Your task to perform on an android device: allow notifications from all sites in the chrome app Image 0: 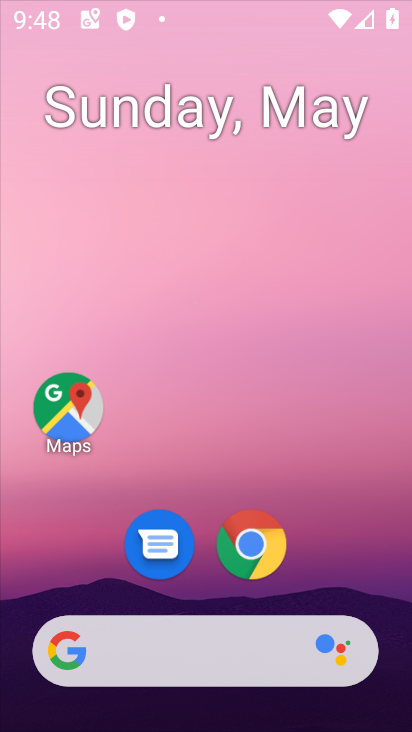
Step 0: drag from (342, 510) to (336, 0)
Your task to perform on an android device: allow notifications from all sites in the chrome app Image 1: 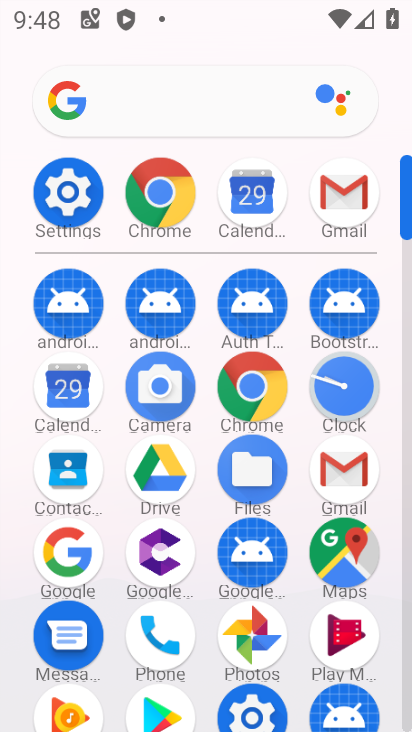
Step 1: click (169, 185)
Your task to perform on an android device: allow notifications from all sites in the chrome app Image 2: 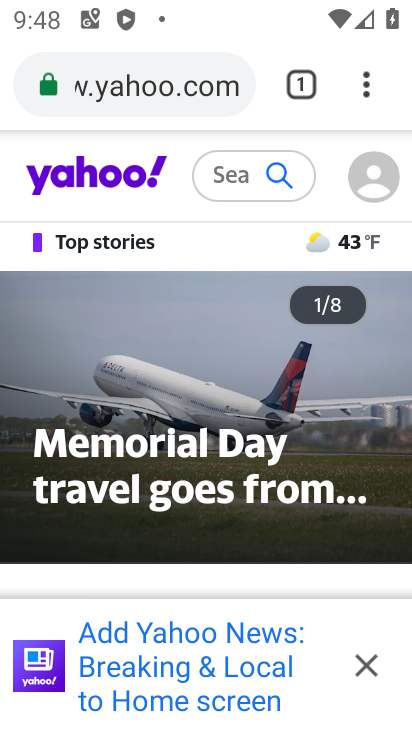
Step 2: click (362, 95)
Your task to perform on an android device: allow notifications from all sites in the chrome app Image 3: 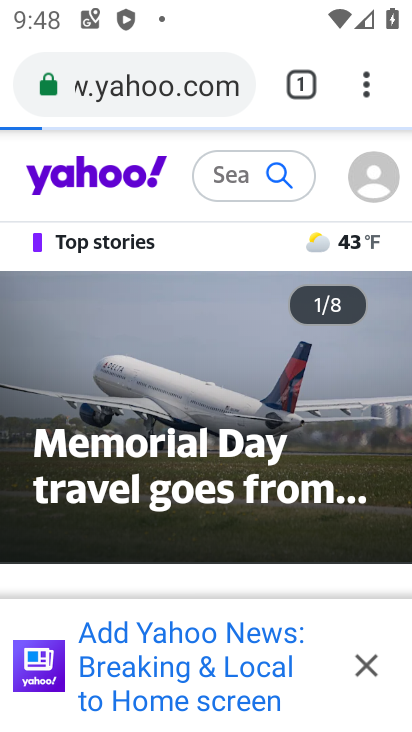
Step 3: drag from (362, 95) to (136, 576)
Your task to perform on an android device: allow notifications from all sites in the chrome app Image 4: 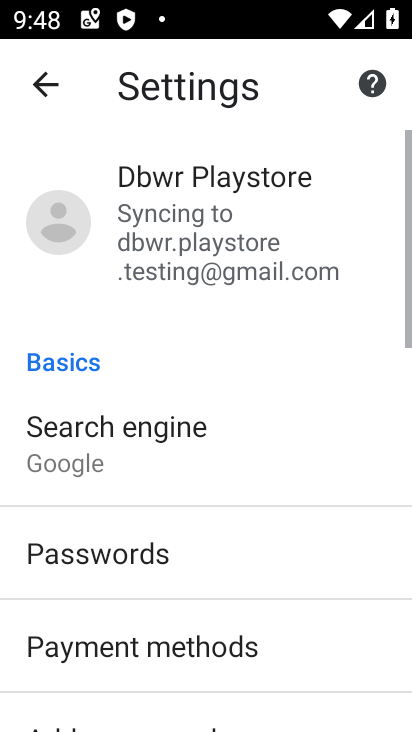
Step 4: drag from (183, 639) to (201, 161)
Your task to perform on an android device: allow notifications from all sites in the chrome app Image 5: 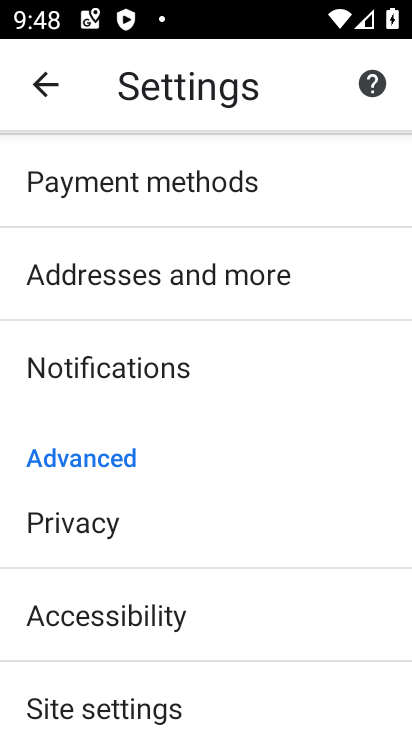
Step 5: drag from (221, 630) to (268, 154)
Your task to perform on an android device: allow notifications from all sites in the chrome app Image 6: 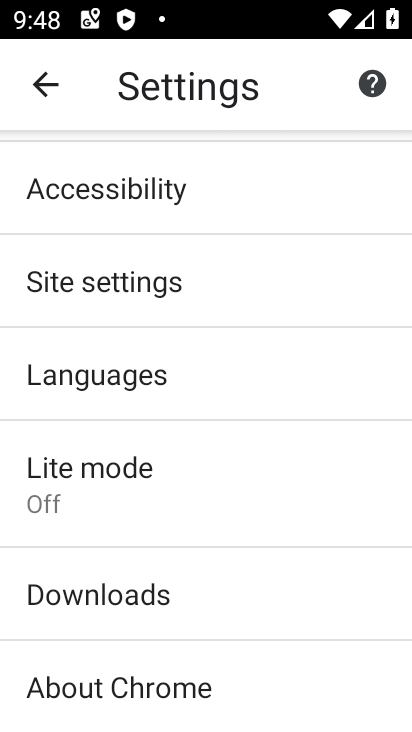
Step 6: click (114, 283)
Your task to perform on an android device: allow notifications from all sites in the chrome app Image 7: 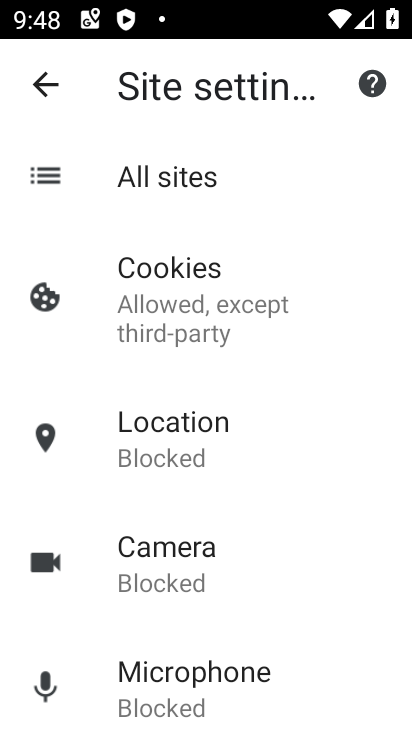
Step 7: drag from (189, 607) to (182, 129)
Your task to perform on an android device: allow notifications from all sites in the chrome app Image 8: 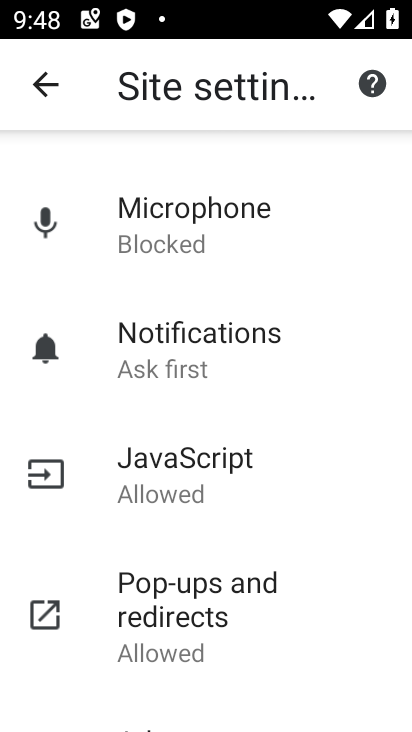
Step 8: drag from (202, 641) to (173, 143)
Your task to perform on an android device: allow notifications from all sites in the chrome app Image 9: 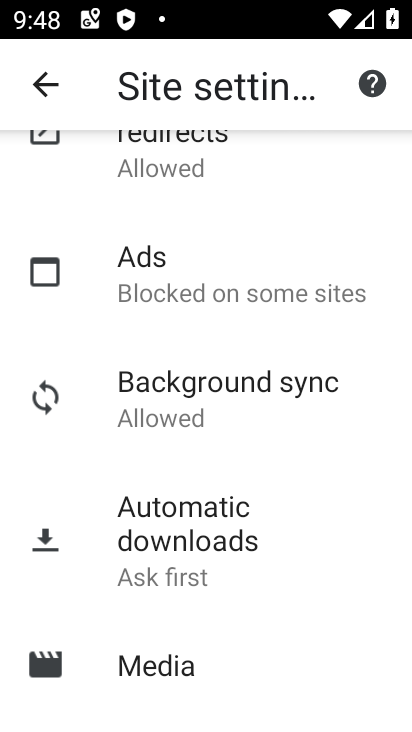
Step 9: drag from (266, 609) to (197, 165)
Your task to perform on an android device: allow notifications from all sites in the chrome app Image 10: 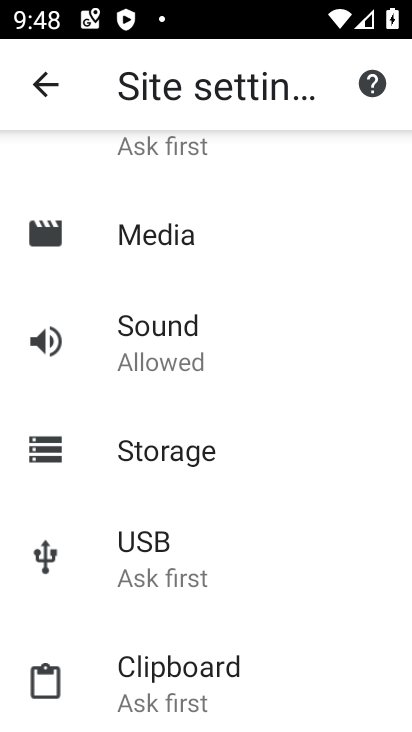
Step 10: drag from (251, 396) to (307, 683)
Your task to perform on an android device: allow notifications from all sites in the chrome app Image 11: 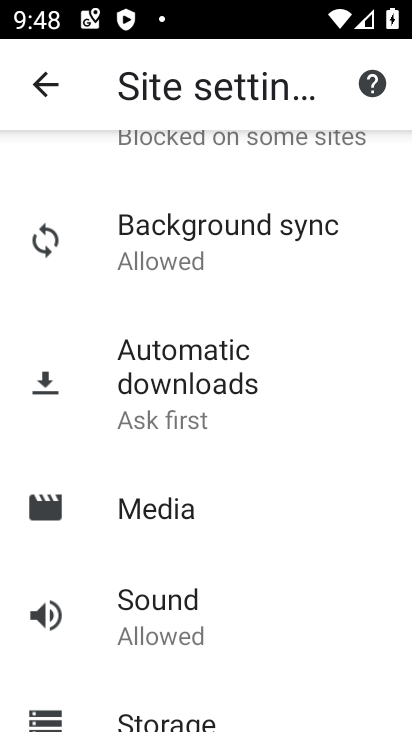
Step 11: drag from (222, 188) to (271, 620)
Your task to perform on an android device: allow notifications from all sites in the chrome app Image 12: 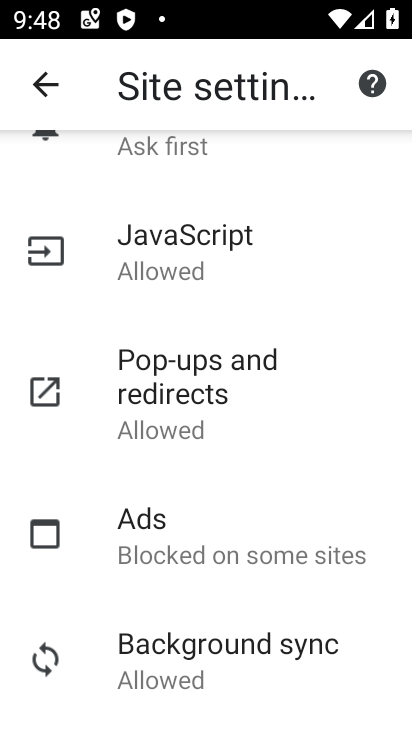
Step 12: drag from (169, 183) to (206, 619)
Your task to perform on an android device: allow notifications from all sites in the chrome app Image 13: 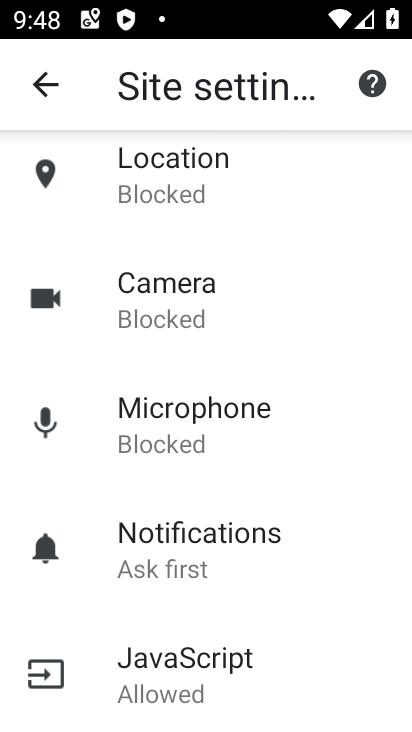
Step 13: drag from (238, 154) to (305, 630)
Your task to perform on an android device: allow notifications from all sites in the chrome app Image 14: 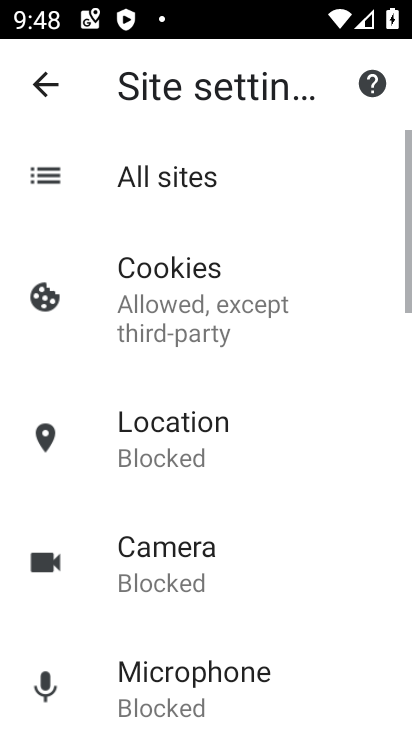
Step 14: drag from (305, 596) to (284, 201)
Your task to perform on an android device: allow notifications from all sites in the chrome app Image 15: 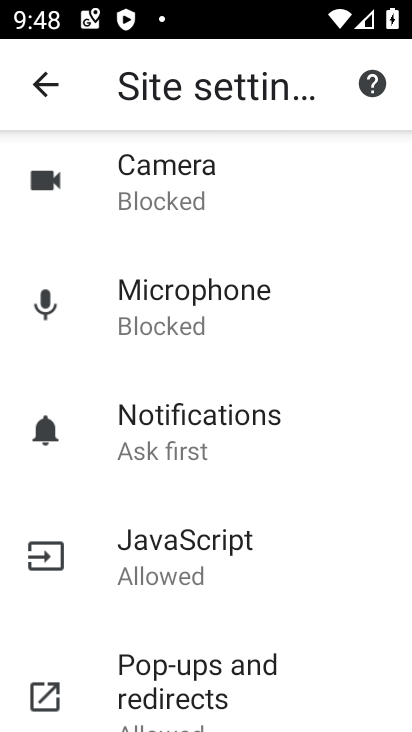
Step 15: drag from (333, 593) to (331, 194)
Your task to perform on an android device: allow notifications from all sites in the chrome app Image 16: 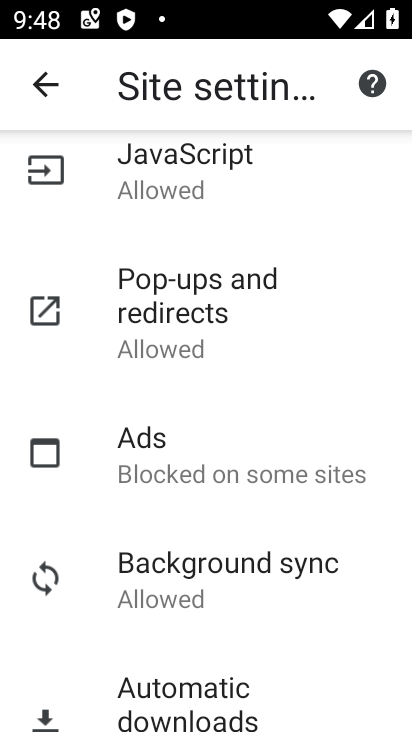
Step 16: drag from (216, 279) to (249, 634)
Your task to perform on an android device: allow notifications from all sites in the chrome app Image 17: 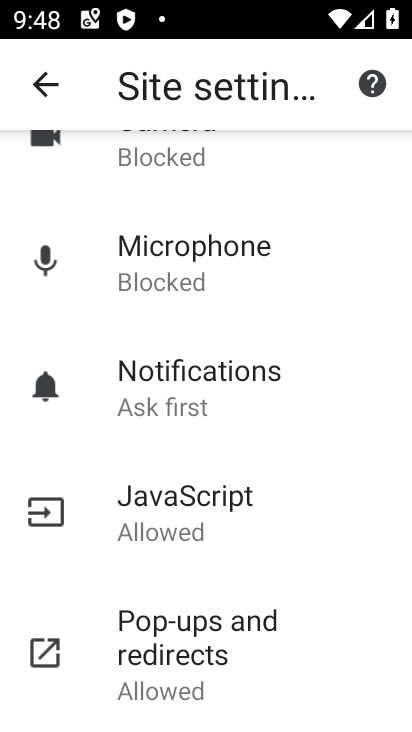
Step 17: click (209, 402)
Your task to perform on an android device: allow notifications from all sites in the chrome app Image 18: 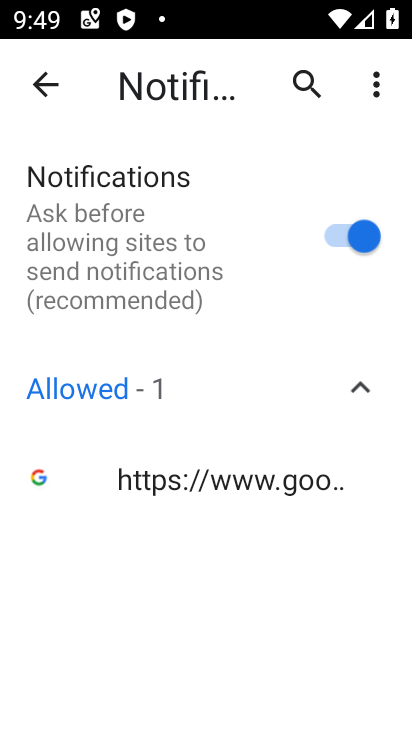
Step 18: task complete